Your task to perform on an android device: turn off improve location accuracy Image 0: 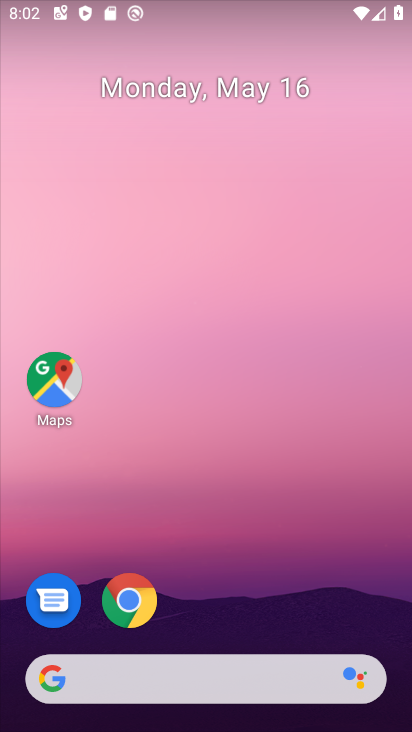
Step 0: drag from (388, 643) to (290, 213)
Your task to perform on an android device: turn off improve location accuracy Image 1: 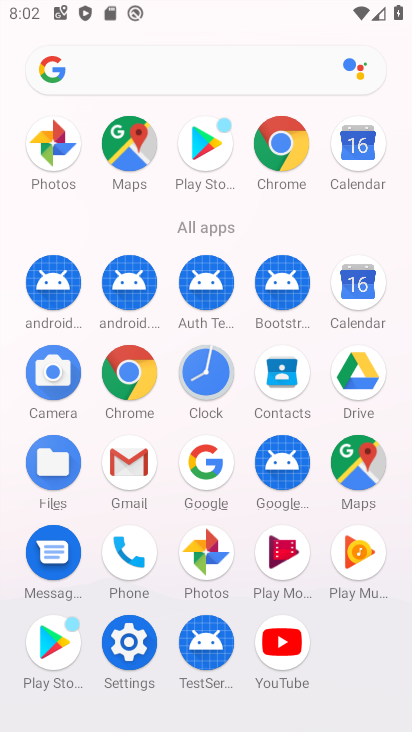
Step 1: click (125, 640)
Your task to perform on an android device: turn off improve location accuracy Image 2: 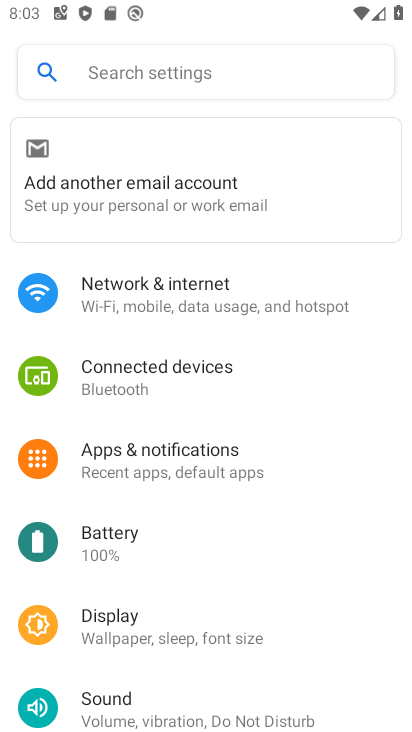
Step 2: drag from (339, 692) to (355, 306)
Your task to perform on an android device: turn off improve location accuracy Image 3: 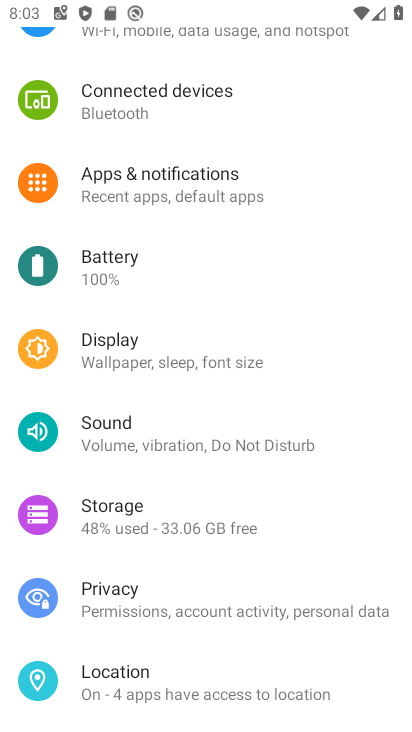
Step 3: drag from (363, 664) to (334, 354)
Your task to perform on an android device: turn off improve location accuracy Image 4: 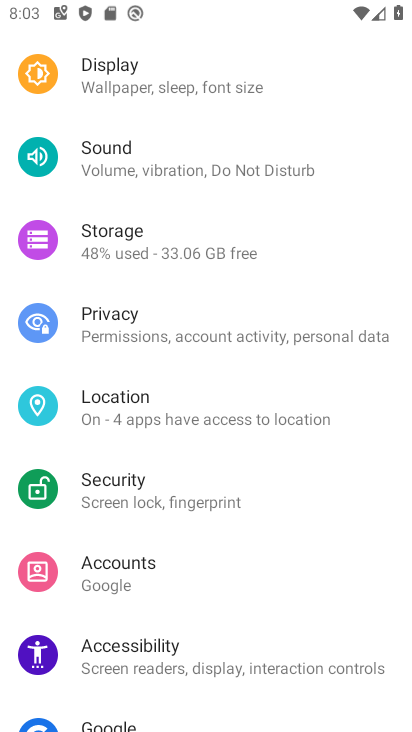
Step 4: click (95, 405)
Your task to perform on an android device: turn off improve location accuracy Image 5: 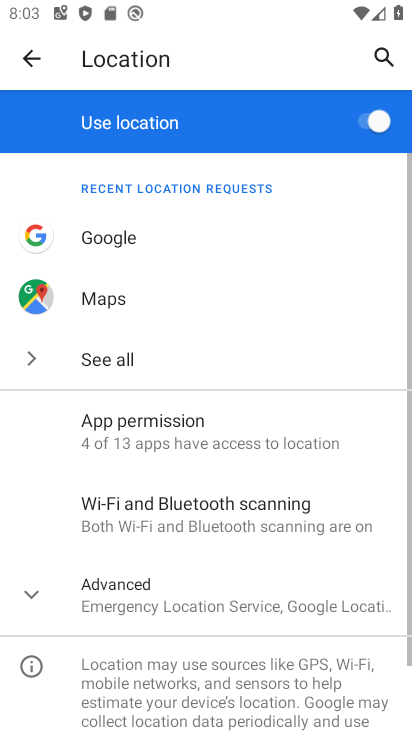
Step 5: click (22, 596)
Your task to perform on an android device: turn off improve location accuracy Image 6: 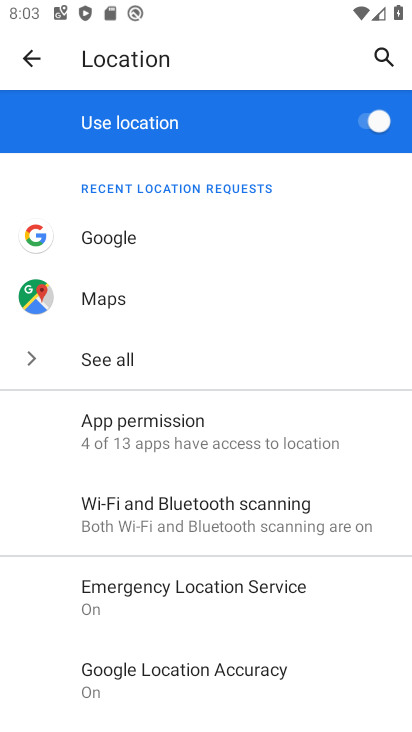
Step 6: click (92, 672)
Your task to perform on an android device: turn off improve location accuracy Image 7: 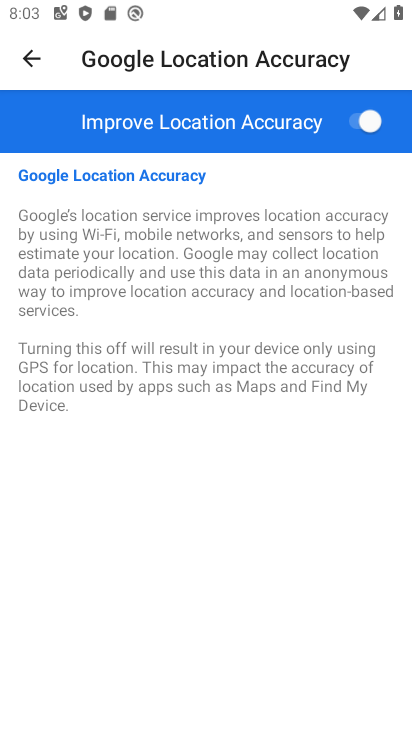
Step 7: click (358, 120)
Your task to perform on an android device: turn off improve location accuracy Image 8: 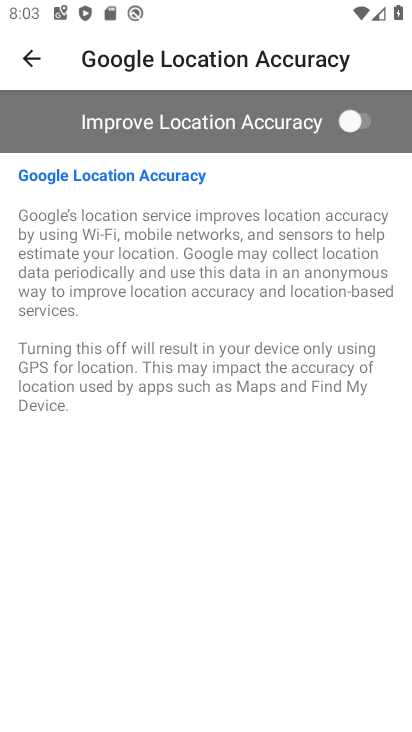
Step 8: task complete